Your task to perform on an android device: remove spam from my inbox in the gmail app Image 0: 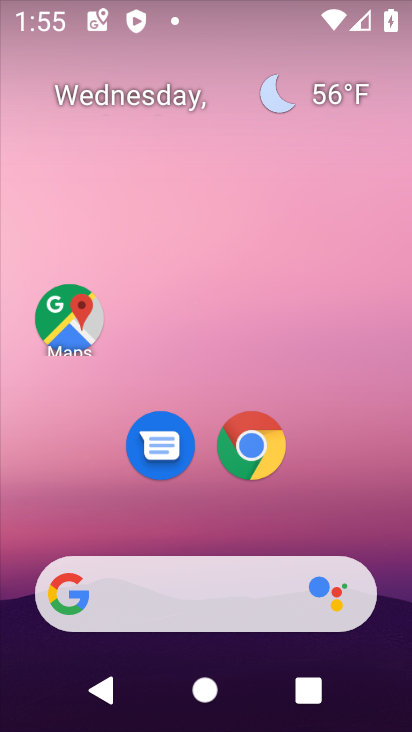
Step 0: drag from (258, 534) to (213, 48)
Your task to perform on an android device: remove spam from my inbox in the gmail app Image 1: 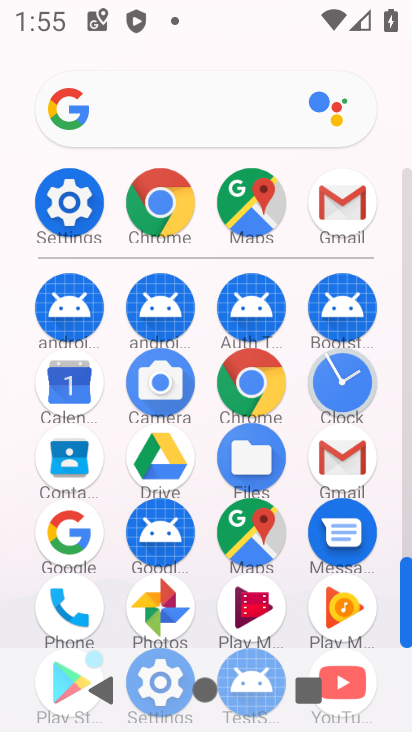
Step 1: click (325, 198)
Your task to perform on an android device: remove spam from my inbox in the gmail app Image 2: 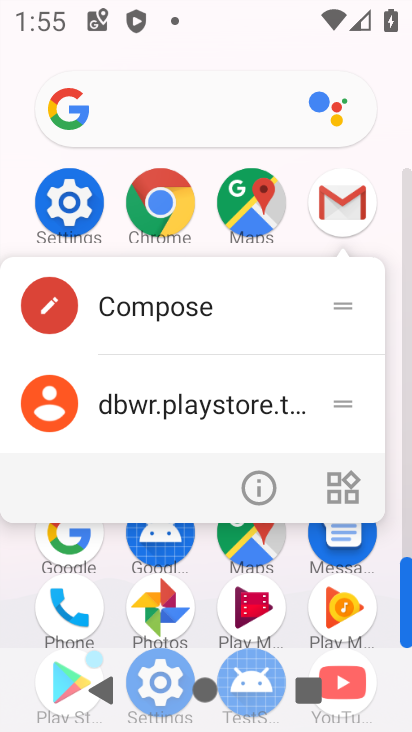
Step 2: click (333, 199)
Your task to perform on an android device: remove spam from my inbox in the gmail app Image 3: 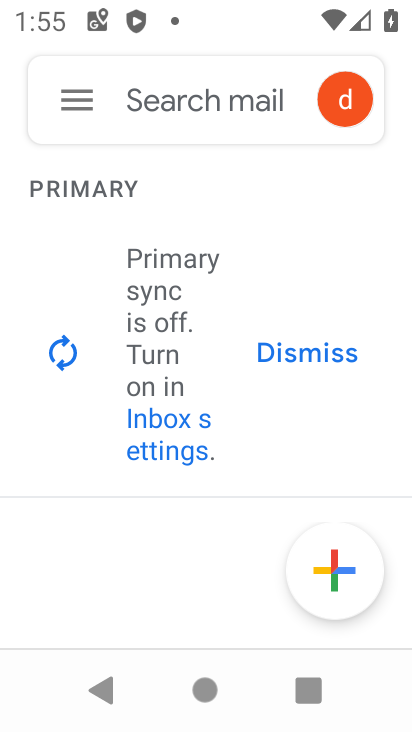
Step 3: click (81, 92)
Your task to perform on an android device: remove spam from my inbox in the gmail app Image 4: 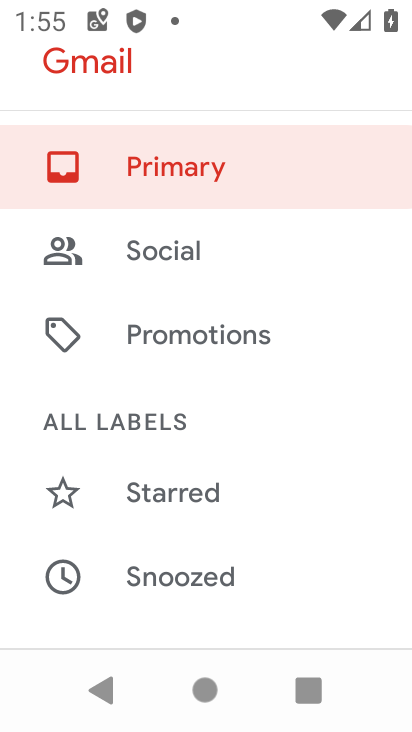
Step 4: drag from (139, 563) to (133, 150)
Your task to perform on an android device: remove spam from my inbox in the gmail app Image 5: 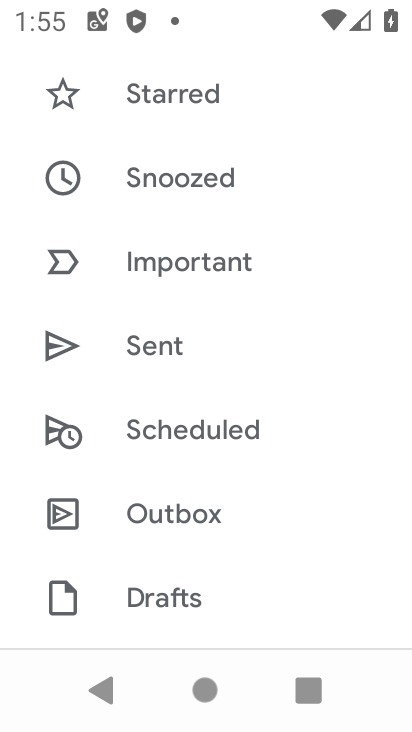
Step 5: drag from (174, 629) to (182, 188)
Your task to perform on an android device: remove spam from my inbox in the gmail app Image 6: 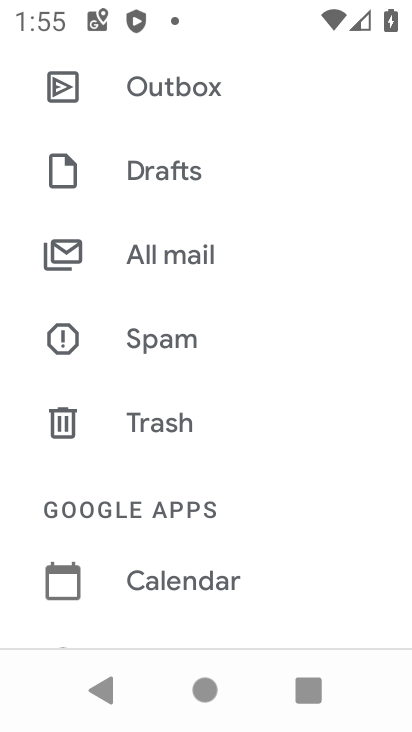
Step 6: click (165, 345)
Your task to perform on an android device: remove spam from my inbox in the gmail app Image 7: 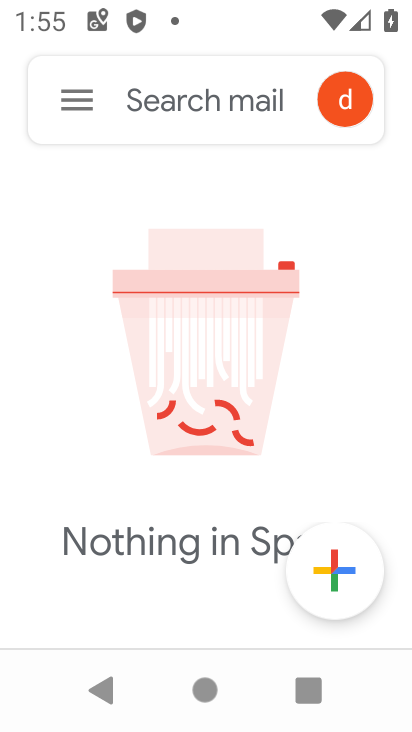
Step 7: task complete